Your task to perform on an android device: turn on bluetooth scan Image 0: 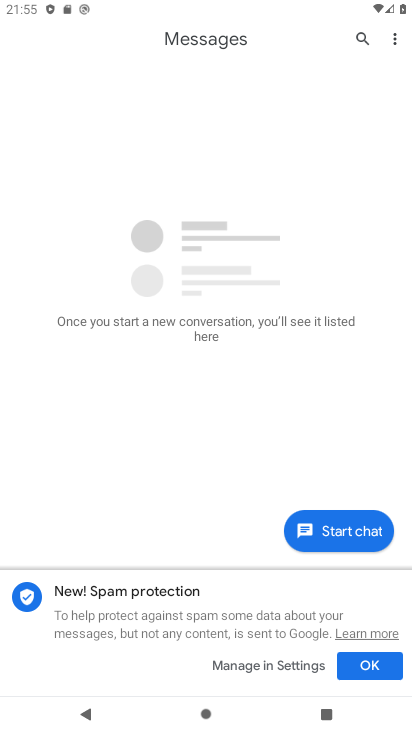
Step 0: press home button
Your task to perform on an android device: turn on bluetooth scan Image 1: 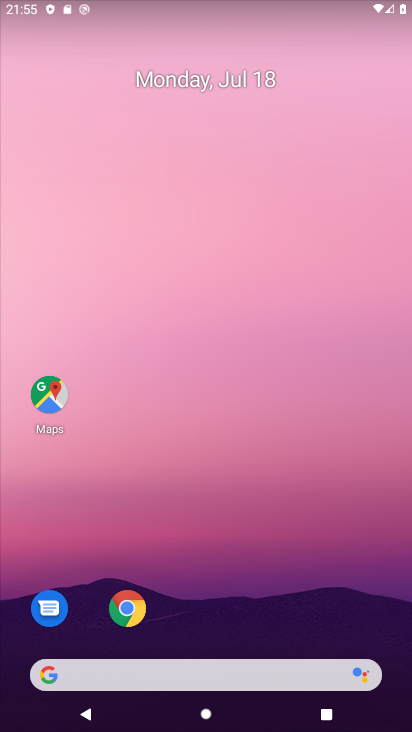
Step 1: drag from (266, 625) to (210, 94)
Your task to perform on an android device: turn on bluetooth scan Image 2: 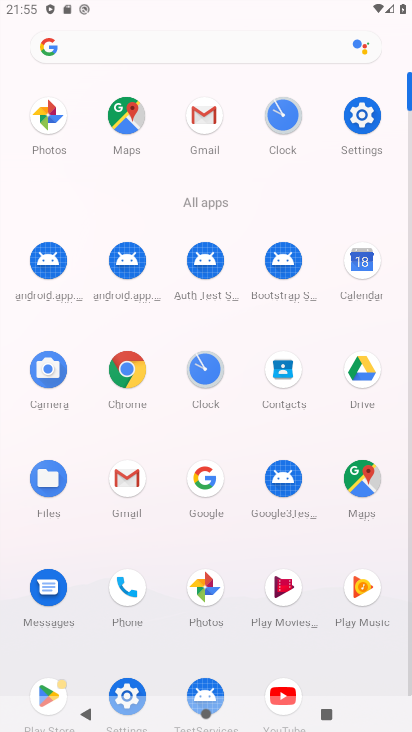
Step 2: click (363, 114)
Your task to perform on an android device: turn on bluetooth scan Image 3: 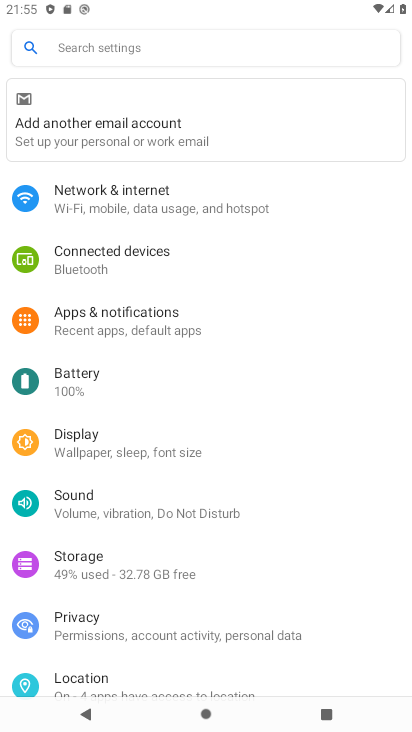
Step 3: click (189, 679)
Your task to perform on an android device: turn on bluetooth scan Image 4: 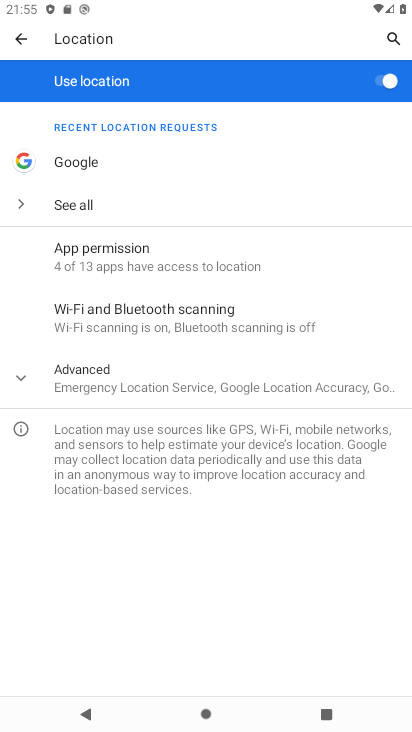
Step 4: click (254, 327)
Your task to perform on an android device: turn on bluetooth scan Image 5: 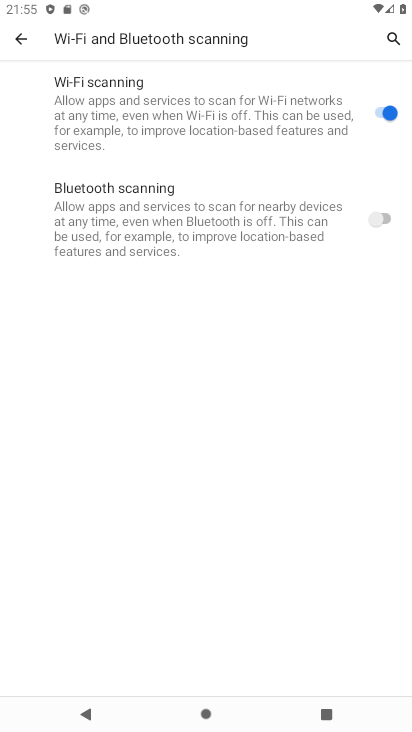
Step 5: click (368, 239)
Your task to perform on an android device: turn on bluetooth scan Image 6: 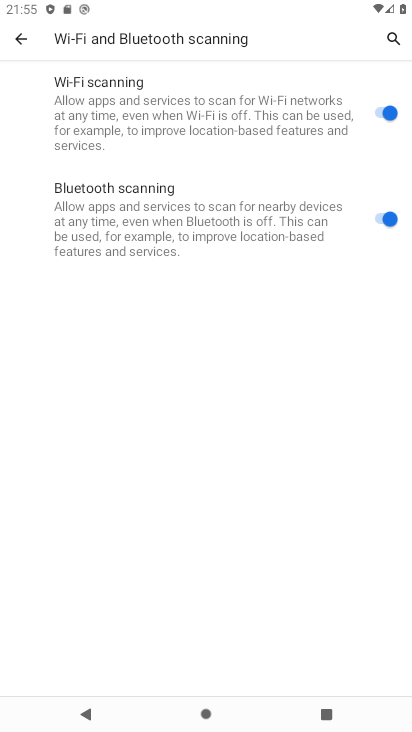
Step 6: task complete